Your task to perform on an android device: Open Wikipedia Image 0: 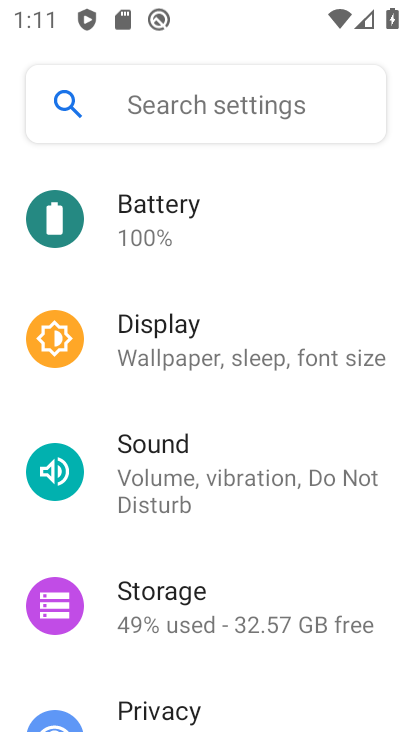
Step 0: press home button
Your task to perform on an android device: Open Wikipedia Image 1: 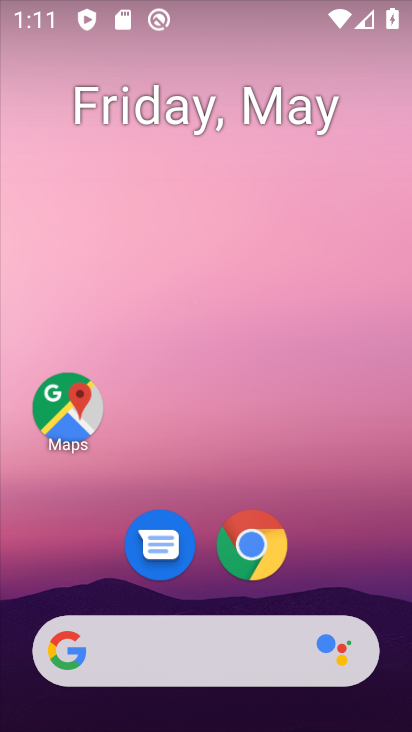
Step 1: click (266, 558)
Your task to perform on an android device: Open Wikipedia Image 2: 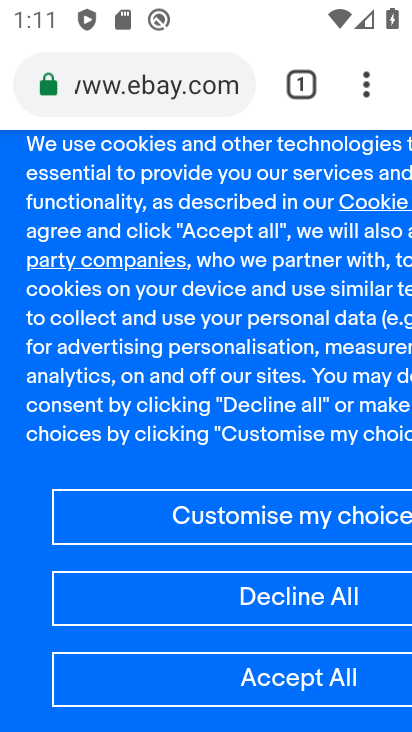
Step 2: click (304, 80)
Your task to perform on an android device: Open Wikipedia Image 3: 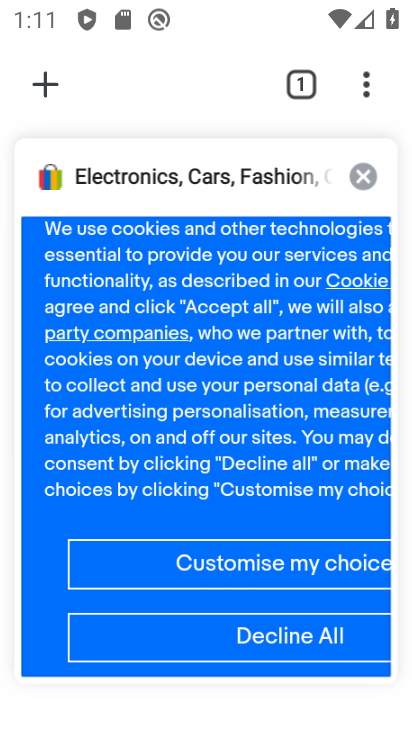
Step 3: click (365, 179)
Your task to perform on an android device: Open Wikipedia Image 4: 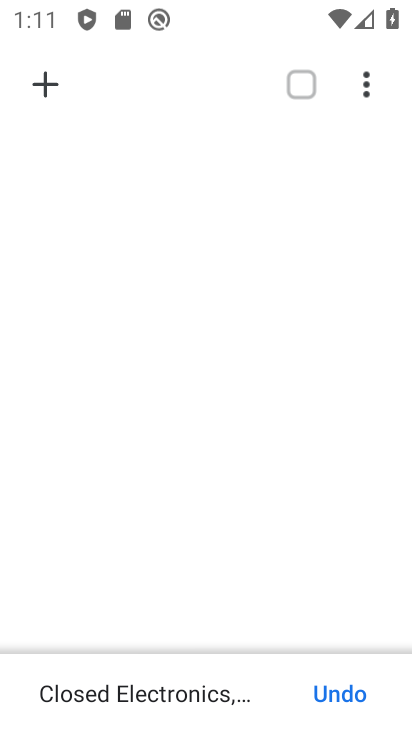
Step 4: click (52, 73)
Your task to perform on an android device: Open Wikipedia Image 5: 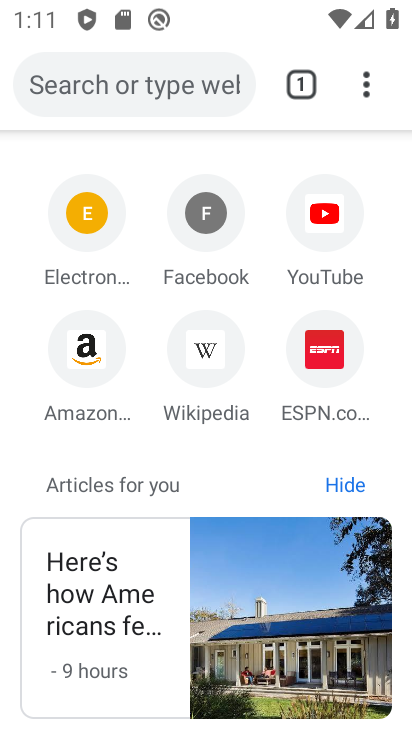
Step 5: click (235, 347)
Your task to perform on an android device: Open Wikipedia Image 6: 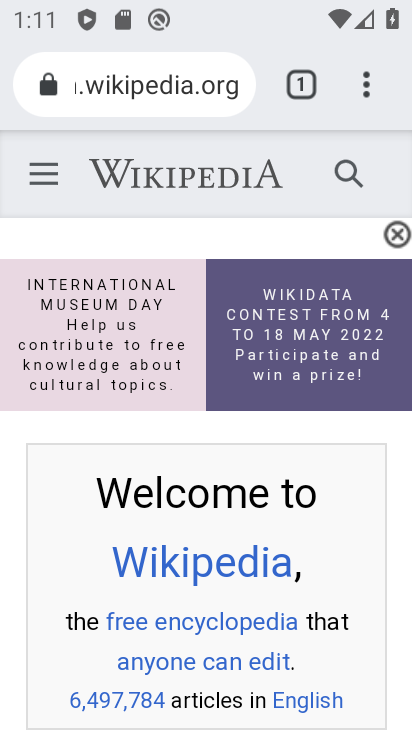
Step 6: task complete